Your task to perform on an android device: Search for vegetarian restaurants on Maps Image 0: 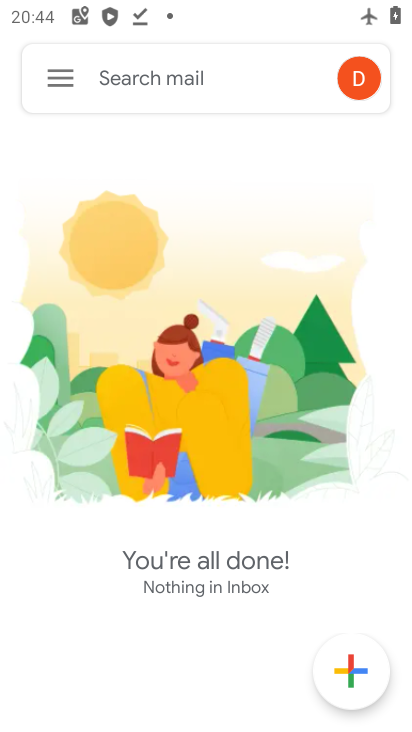
Step 0: press back button
Your task to perform on an android device: Search for vegetarian restaurants on Maps Image 1: 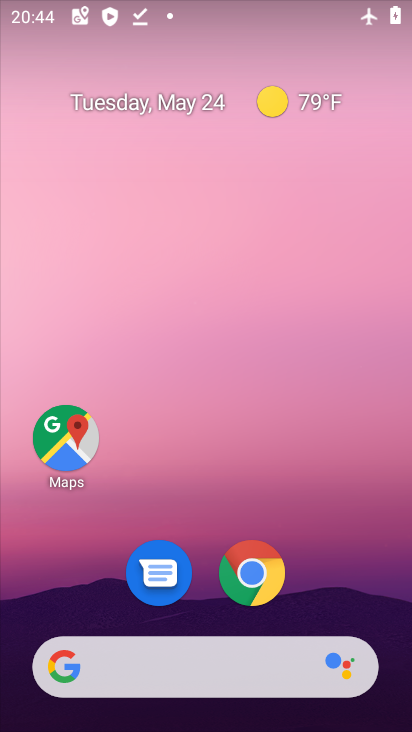
Step 1: drag from (356, 679) to (186, 258)
Your task to perform on an android device: Search for vegetarian restaurants on Maps Image 2: 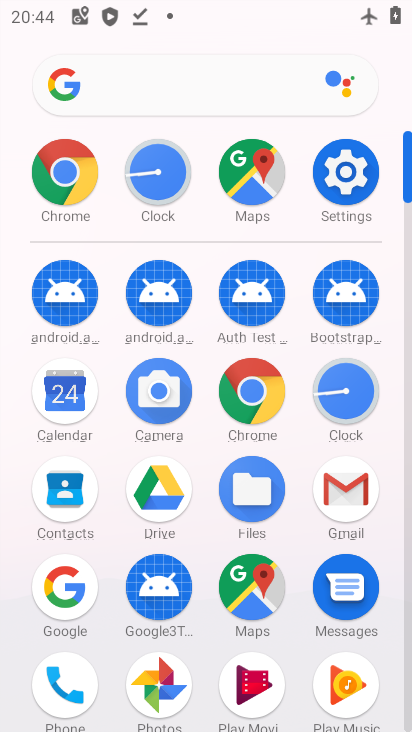
Step 2: click (232, 162)
Your task to perform on an android device: Search for vegetarian restaurants on Maps Image 3: 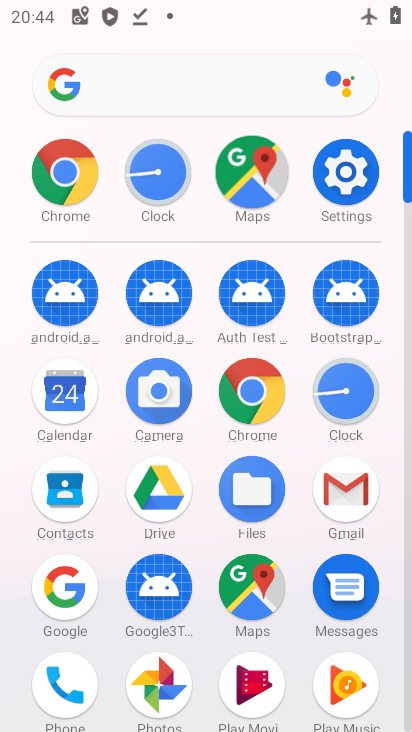
Step 3: click (238, 166)
Your task to perform on an android device: Search for vegetarian restaurants on Maps Image 4: 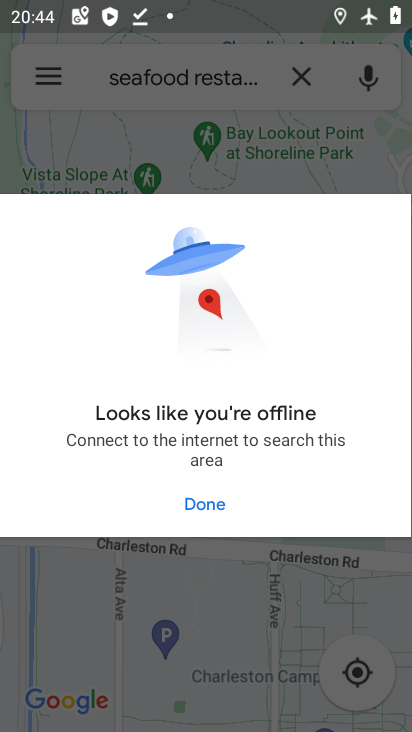
Step 4: task complete